Your task to perform on an android device: open a bookmark in the chrome app Image 0: 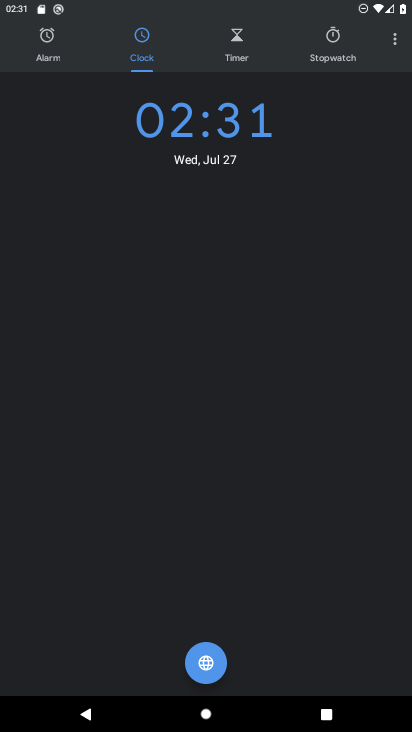
Step 0: press home button
Your task to perform on an android device: open a bookmark in the chrome app Image 1: 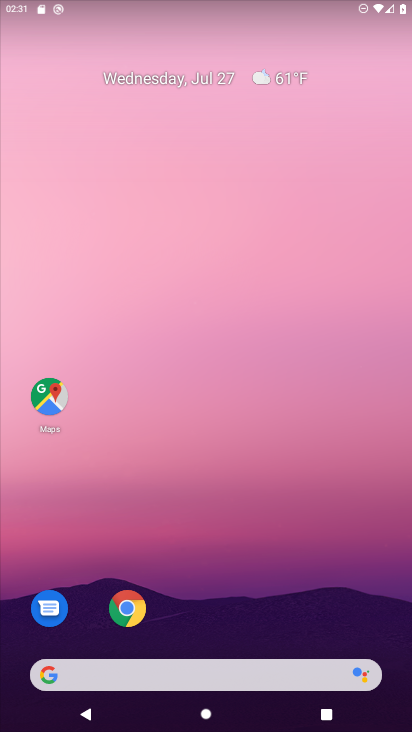
Step 1: drag from (311, 611) to (350, 0)
Your task to perform on an android device: open a bookmark in the chrome app Image 2: 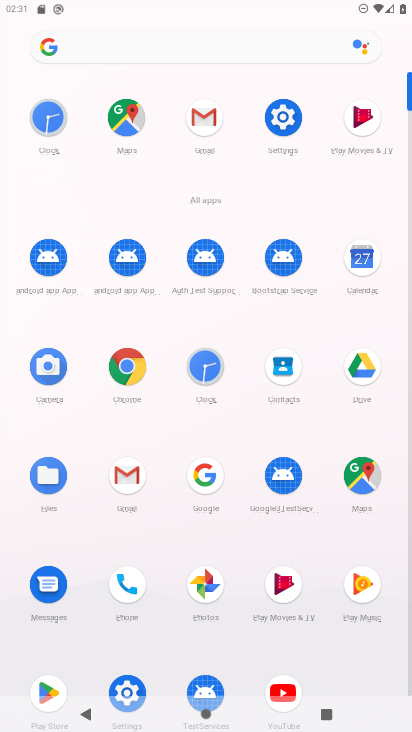
Step 2: click (125, 373)
Your task to perform on an android device: open a bookmark in the chrome app Image 3: 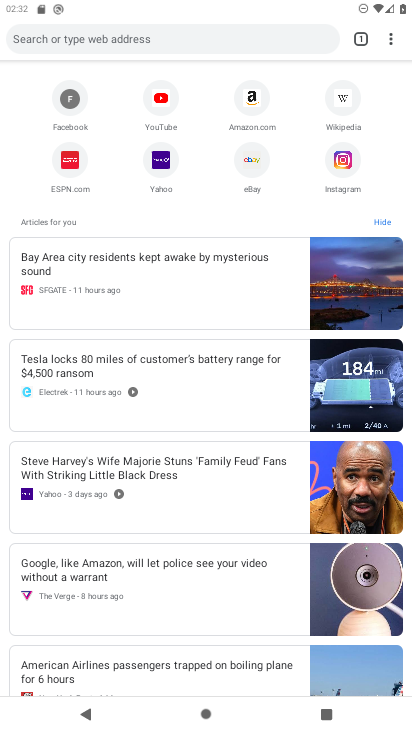
Step 3: click (389, 38)
Your task to perform on an android device: open a bookmark in the chrome app Image 4: 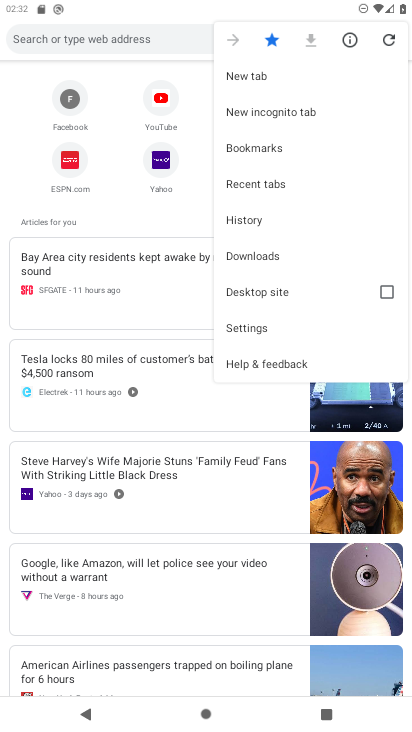
Step 4: click (287, 153)
Your task to perform on an android device: open a bookmark in the chrome app Image 5: 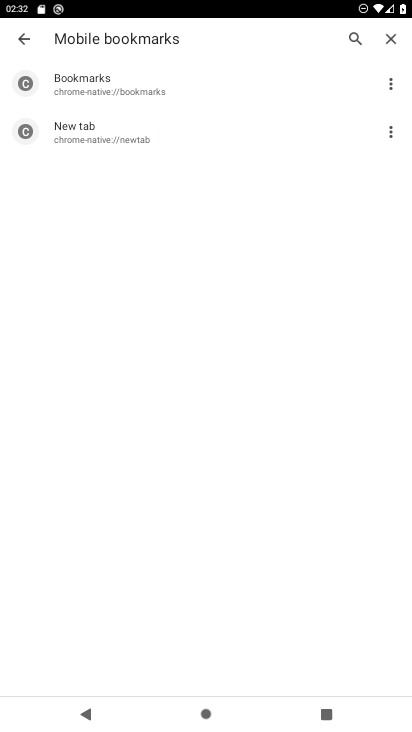
Step 5: click (218, 142)
Your task to perform on an android device: open a bookmark in the chrome app Image 6: 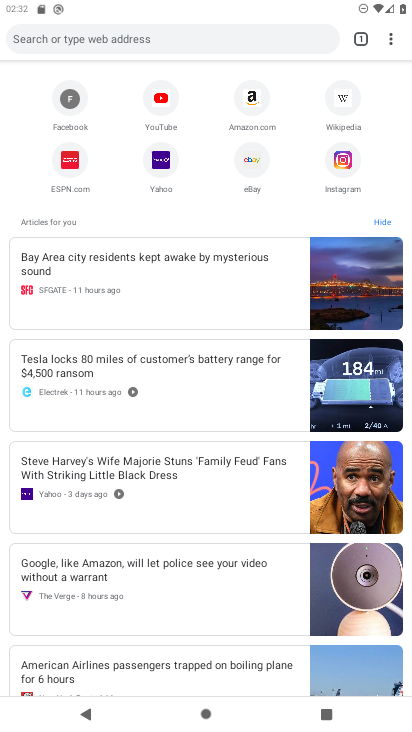
Step 6: task complete